Your task to perform on an android device: turn off location history Image 0: 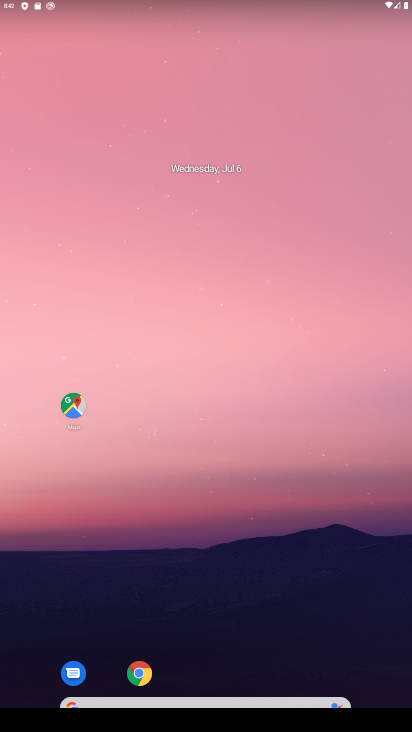
Step 0: drag from (140, 680) to (179, 253)
Your task to perform on an android device: turn off location history Image 1: 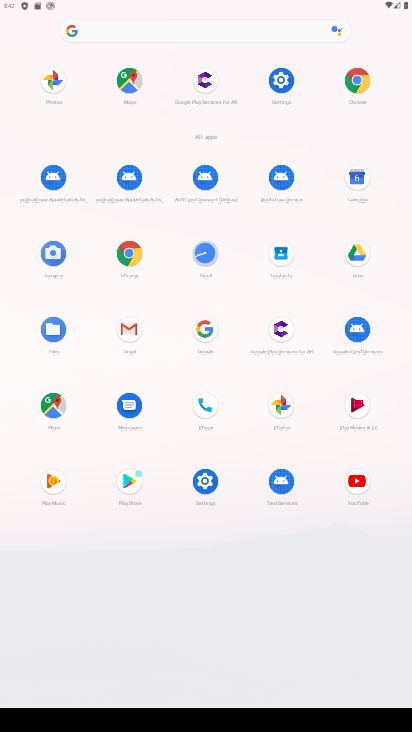
Step 1: click (287, 77)
Your task to perform on an android device: turn off location history Image 2: 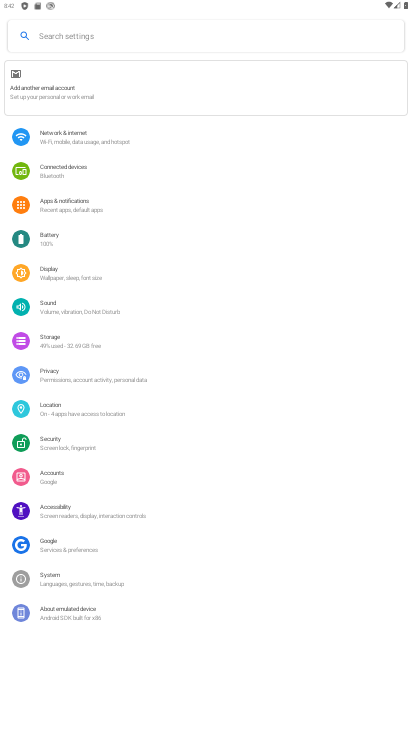
Step 2: click (75, 407)
Your task to perform on an android device: turn off location history Image 3: 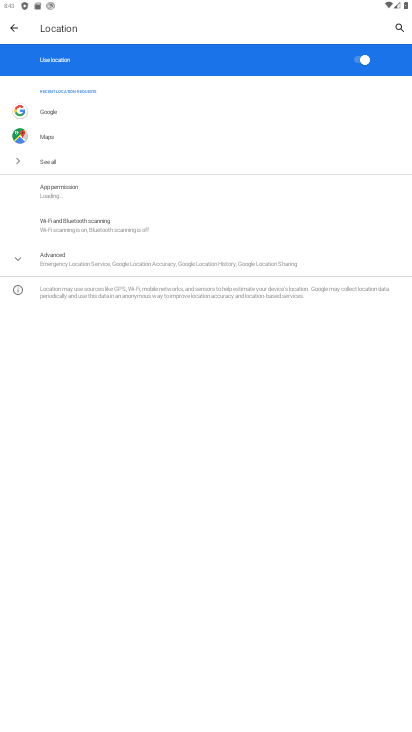
Step 3: click (366, 56)
Your task to perform on an android device: turn off location history Image 4: 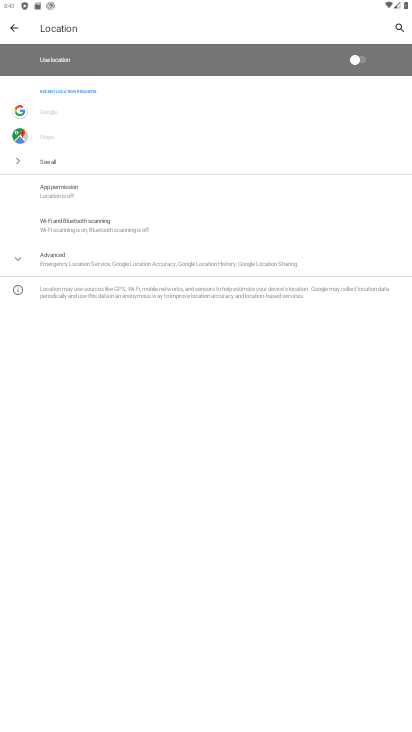
Step 4: task complete